Your task to perform on an android device: Open Chrome and go to settings Image 0: 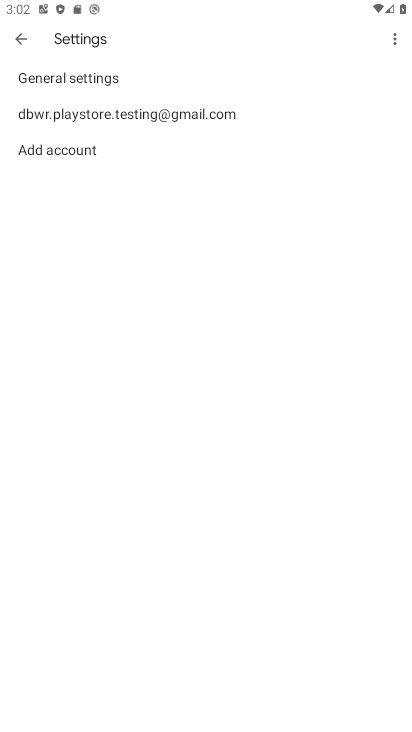
Step 0: press home button
Your task to perform on an android device: Open Chrome and go to settings Image 1: 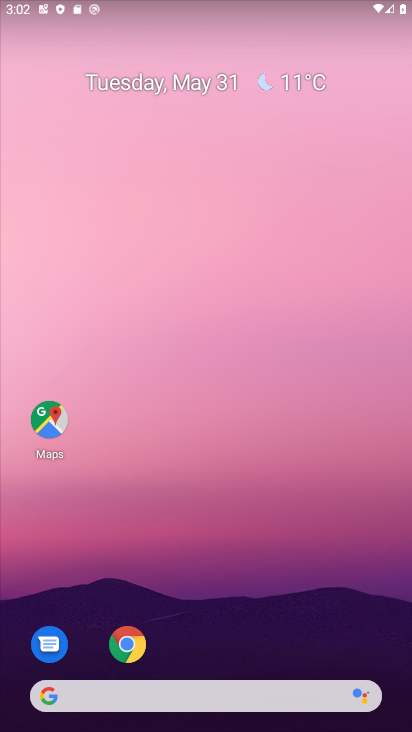
Step 1: click (121, 643)
Your task to perform on an android device: Open Chrome and go to settings Image 2: 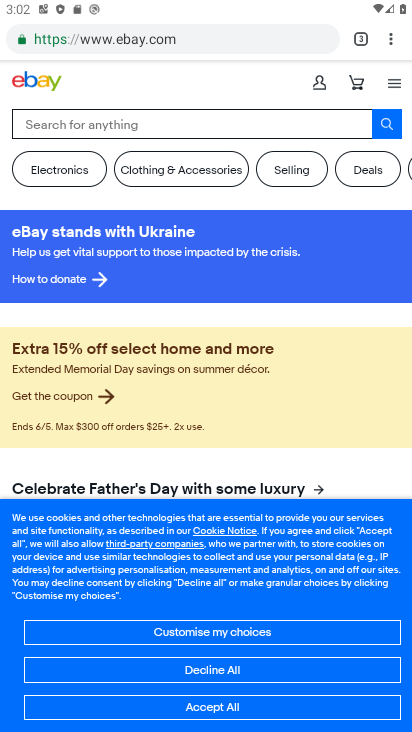
Step 2: click (396, 31)
Your task to perform on an android device: Open Chrome and go to settings Image 3: 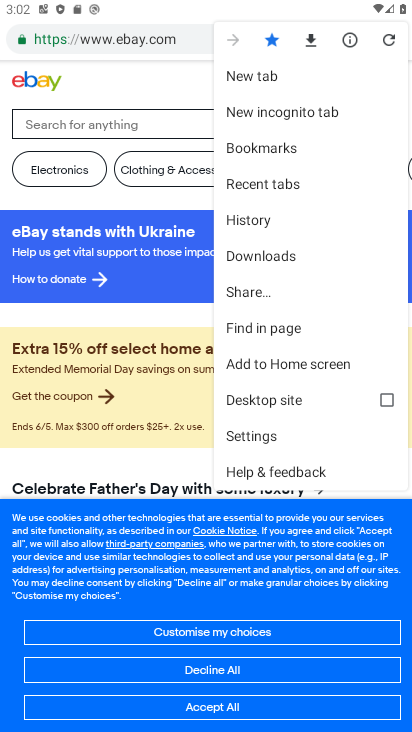
Step 3: click (259, 426)
Your task to perform on an android device: Open Chrome and go to settings Image 4: 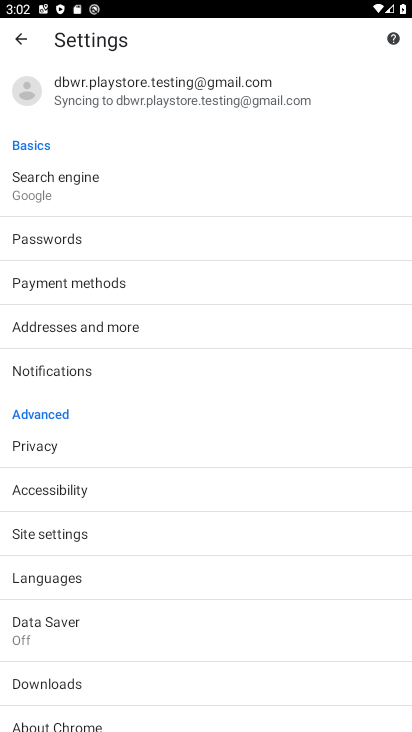
Step 4: task complete